Your task to perform on an android device: Go to CNN.com Image 0: 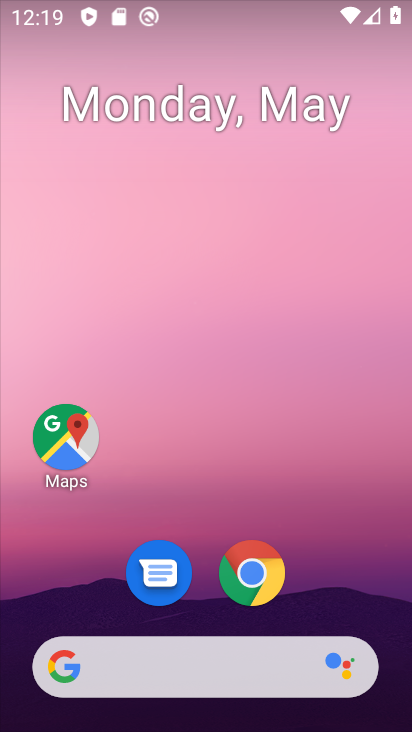
Step 0: click (170, 664)
Your task to perform on an android device: Go to CNN.com Image 1: 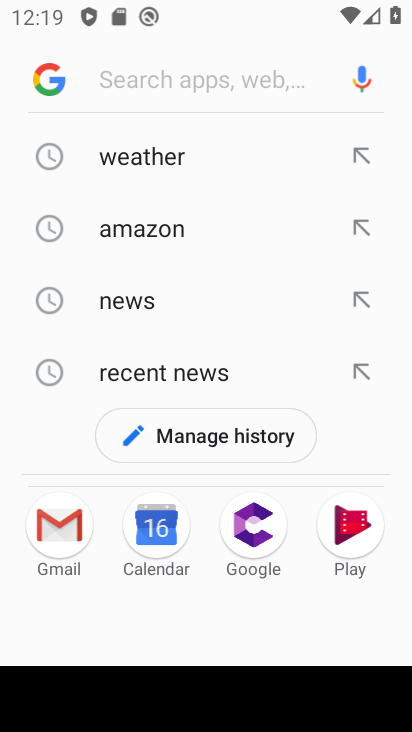
Step 1: type "cnn.com"
Your task to perform on an android device: Go to CNN.com Image 2: 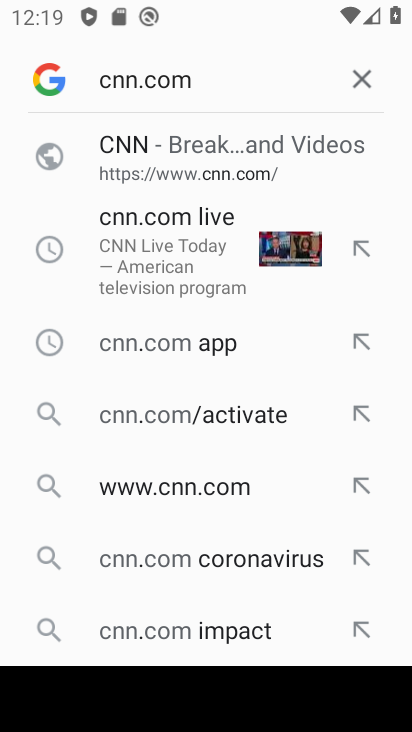
Step 2: click (205, 150)
Your task to perform on an android device: Go to CNN.com Image 3: 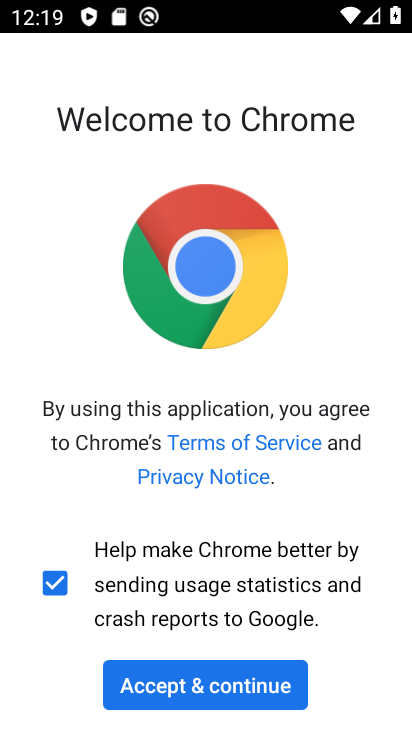
Step 3: click (164, 679)
Your task to perform on an android device: Go to CNN.com Image 4: 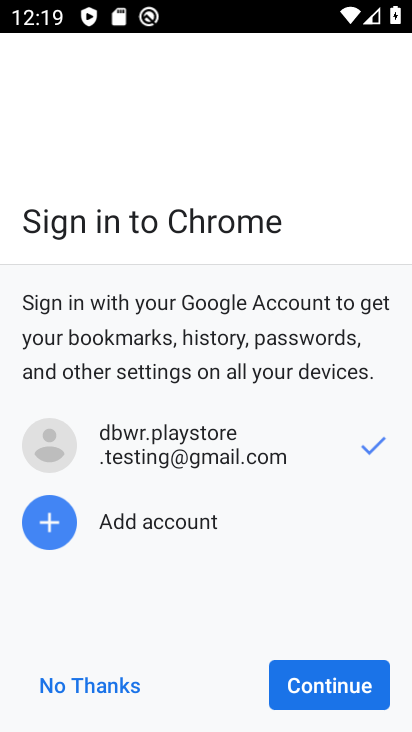
Step 4: click (297, 673)
Your task to perform on an android device: Go to CNN.com Image 5: 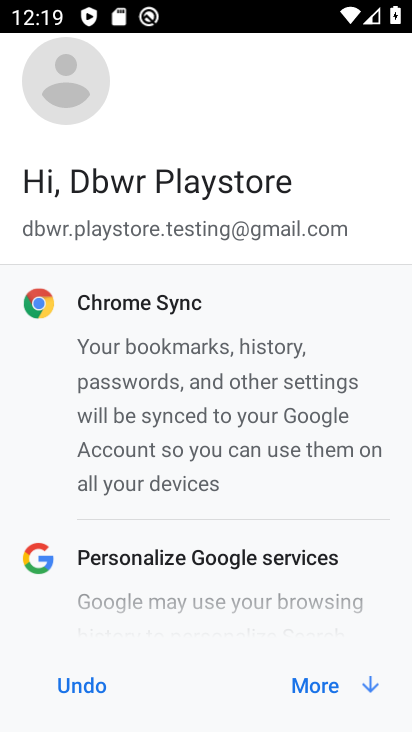
Step 5: click (297, 673)
Your task to perform on an android device: Go to CNN.com Image 6: 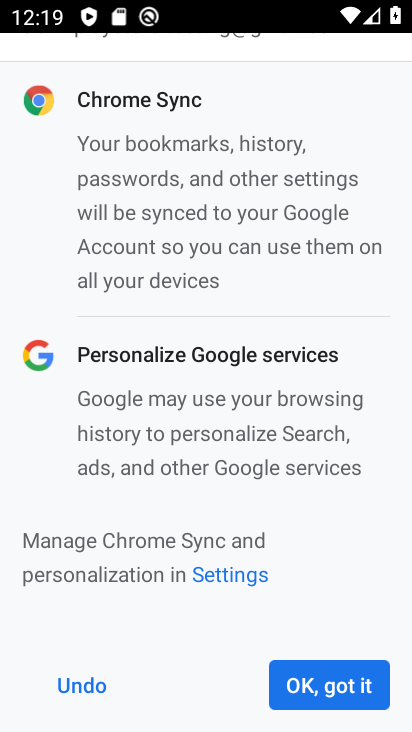
Step 6: click (297, 673)
Your task to perform on an android device: Go to CNN.com Image 7: 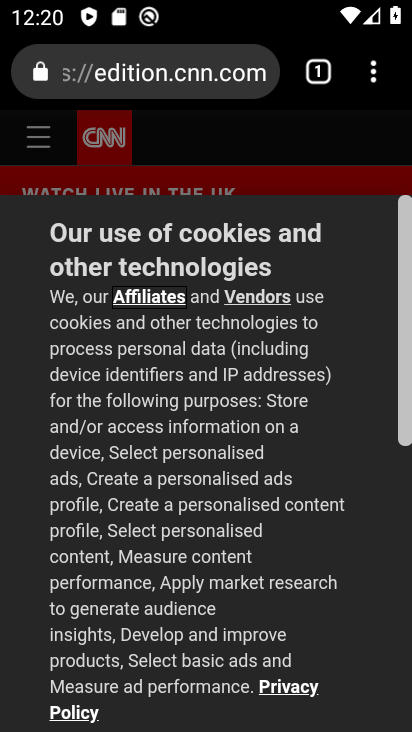
Step 7: task complete